Your task to perform on an android device: change the clock style Image 0: 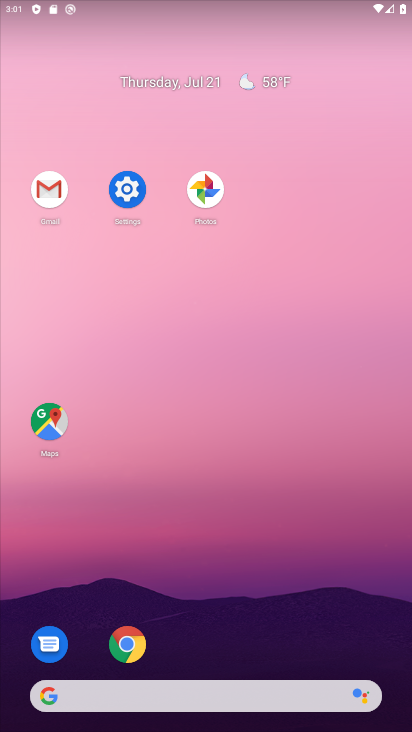
Step 0: drag from (280, 643) to (261, 162)
Your task to perform on an android device: change the clock style Image 1: 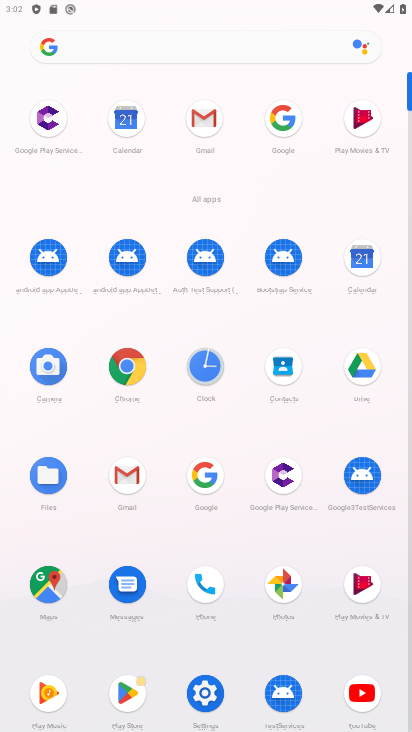
Step 1: click (219, 372)
Your task to perform on an android device: change the clock style Image 2: 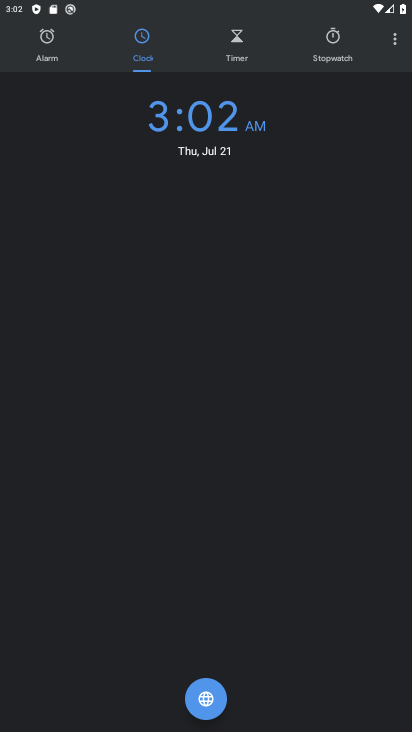
Step 2: click (399, 33)
Your task to perform on an android device: change the clock style Image 3: 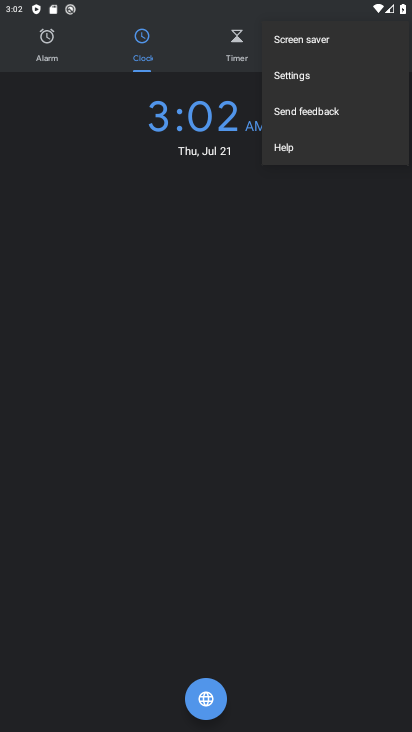
Step 3: click (306, 84)
Your task to perform on an android device: change the clock style Image 4: 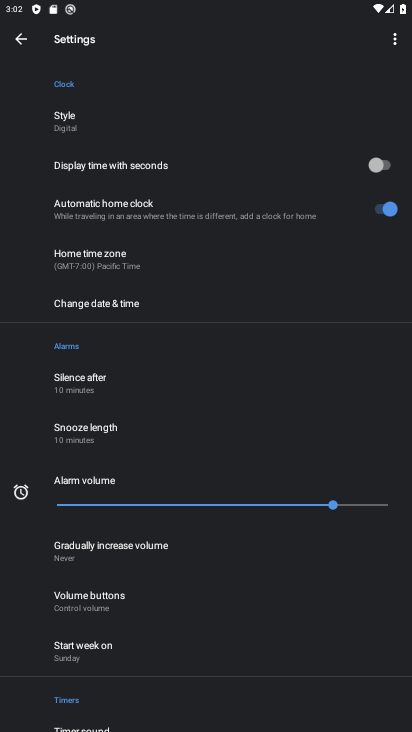
Step 4: click (69, 127)
Your task to perform on an android device: change the clock style Image 5: 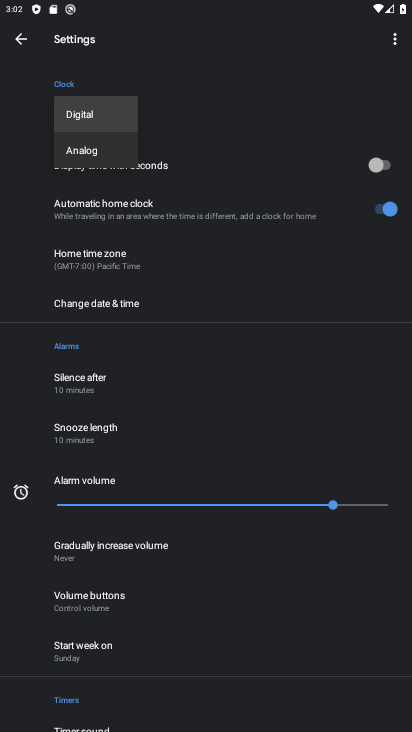
Step 5: click (90, 155)
Your task to perform on an android device: change the clock style Image 6: 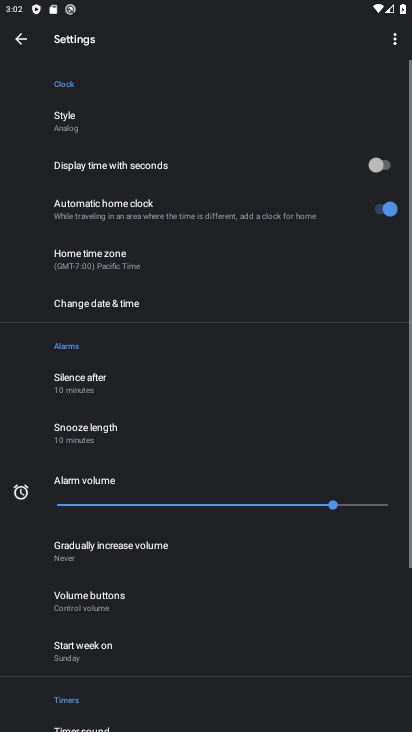
Step 6: task complete